Your task to perform on an android device: Open Google Chrome and open the bookmarks view Image 0: 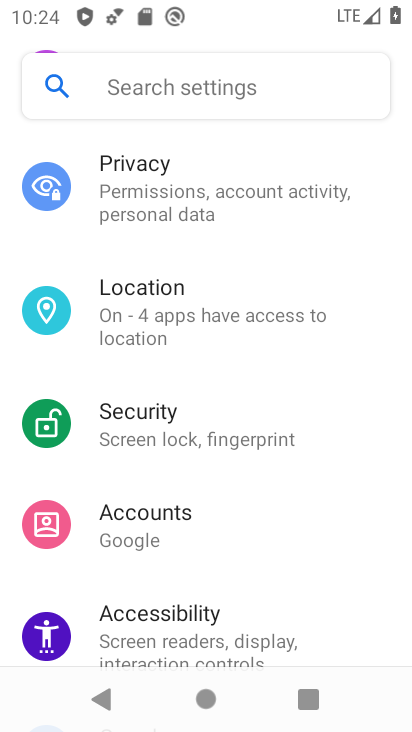
Step 0: press home button
Your task to perform on an android device: Open Google Chrome and open the bookmarks view Image 1: 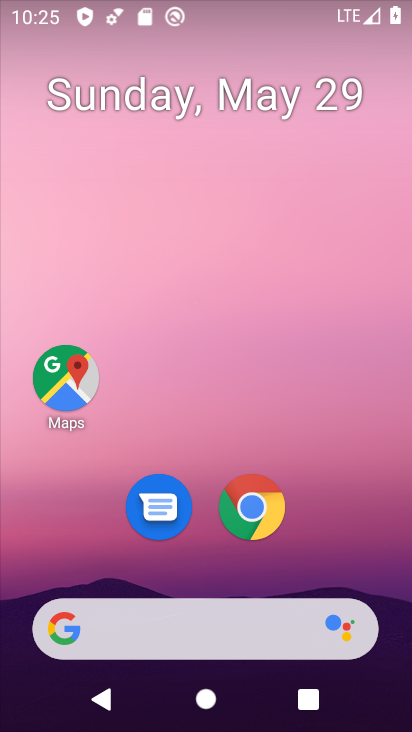
Step 1: click (264, 508)
Your task to perform on an android device: Open Google Chrome and open the bookmarks view Image 2: 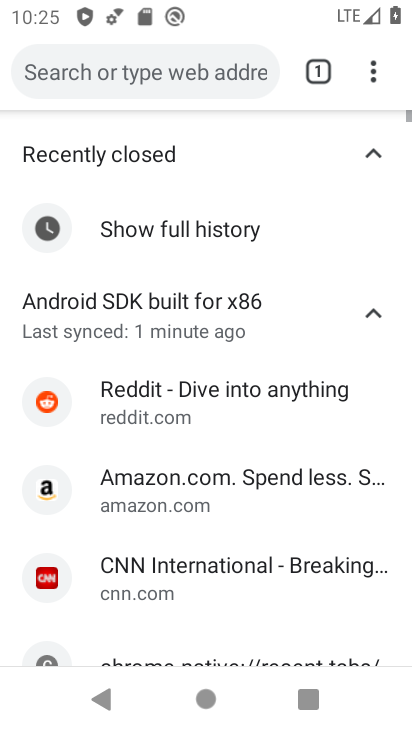
Step 2: drag from (379, 73) to (281, 262)
Your task to perform on an android device: Open Google Chrome and open the bookmarks view Image 3: 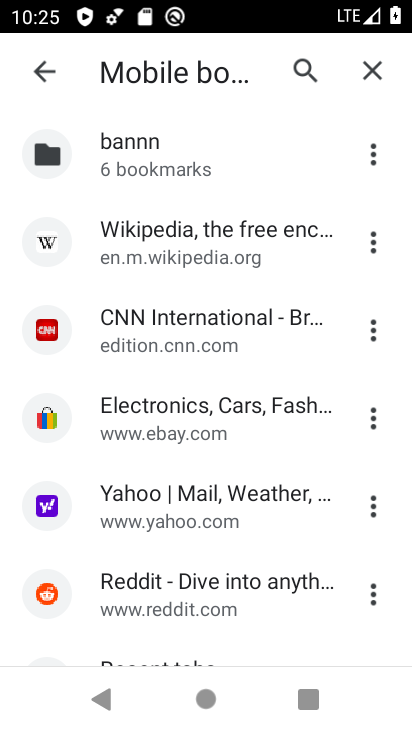
Step 3: click (194, 165)
Your task to perform on an android device: Open Google Chrome and open the bookmarks view Image 4: 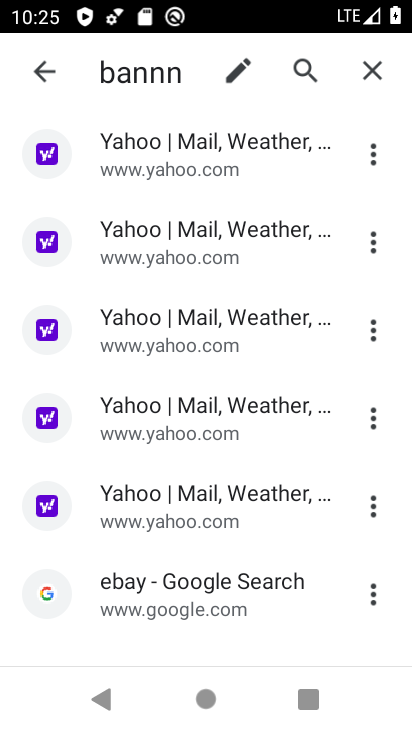
Step 4: task complete